Your task to perform on an android device: change the clock display to digital Image 0: 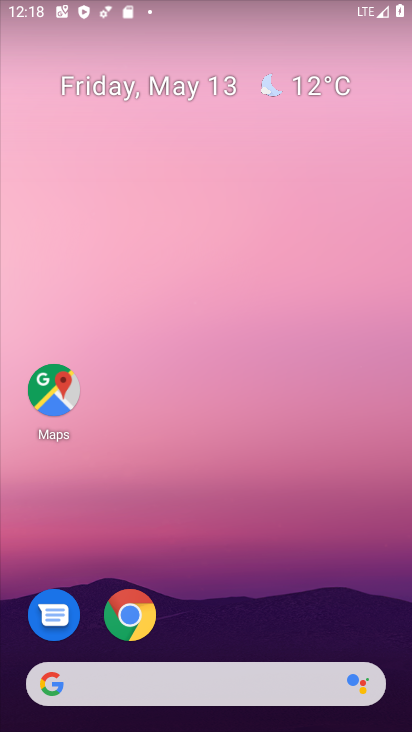
Step 0: drag from (260, 623) to (269, 272)
Your task to perform on an android device: change the clock display to digital Image 1: 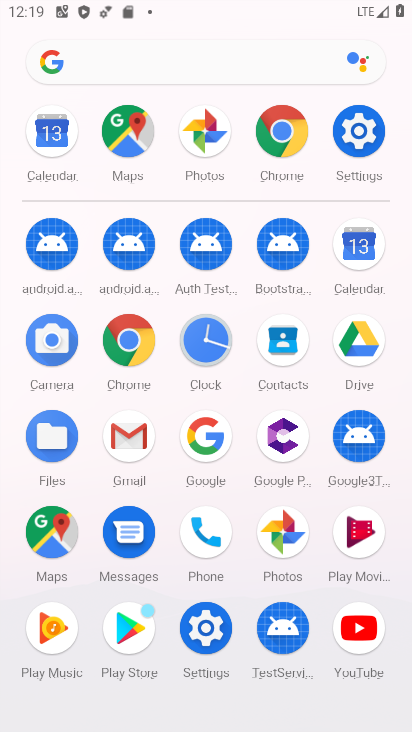
Step 1: click (214, 334)
Your task to perform on an android device: change the clock display to digital Image 2: 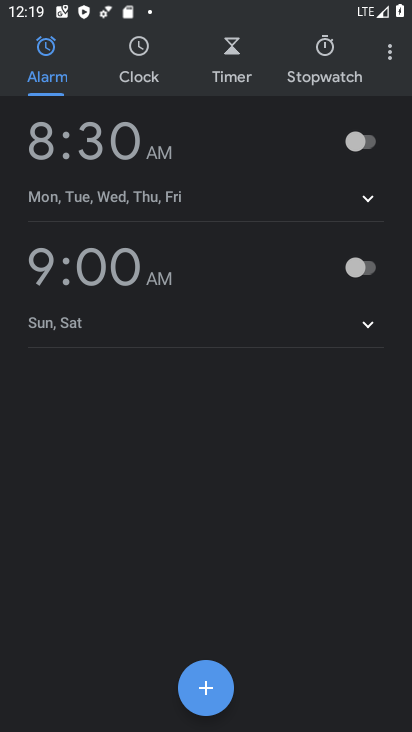
Step 2: click (387, 45)
Your task to perform on an android device: change the clock display to digital Image 3: 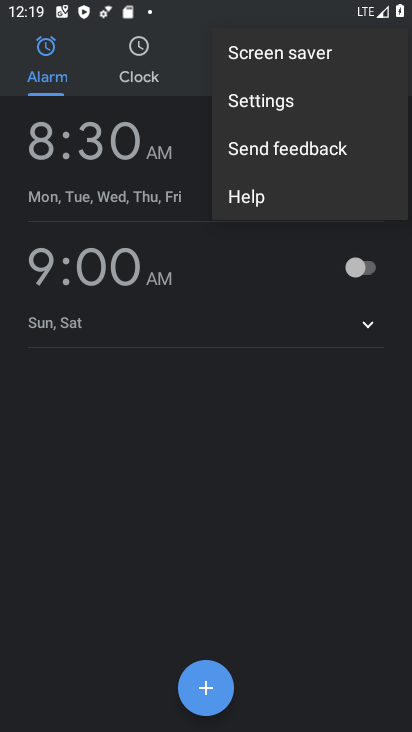
Step 3: click (303, 91)
Your task to perform on an android device: change the clock display to digital Image 4: 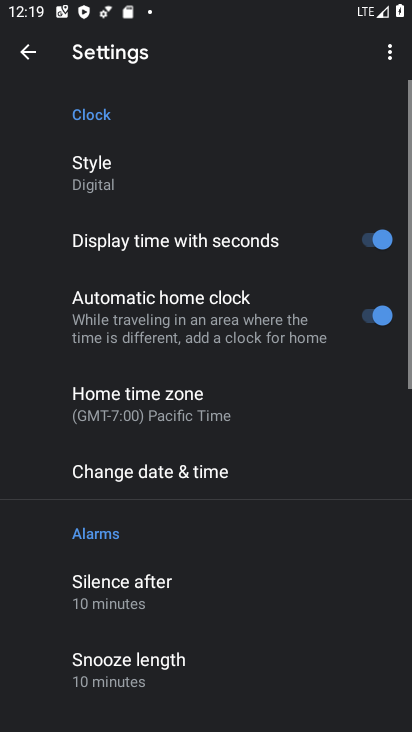
Step 4: click (139, 169)
Your task to perform on an android device: change the clock display to digital Image 5: 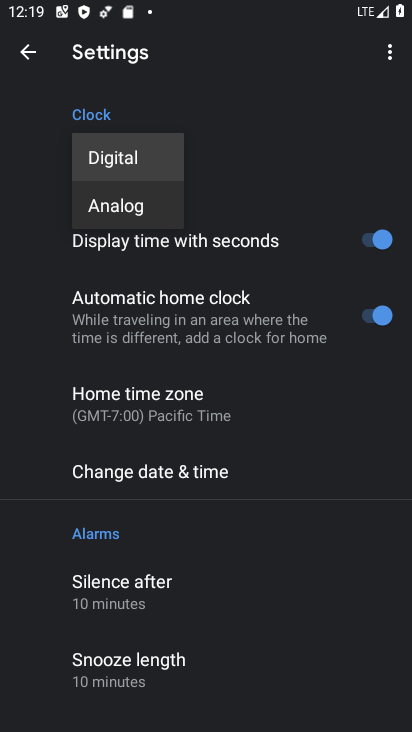
Step 5: task complete